Your task to perform on an android device: Do I have any events this weekend? Image 0: 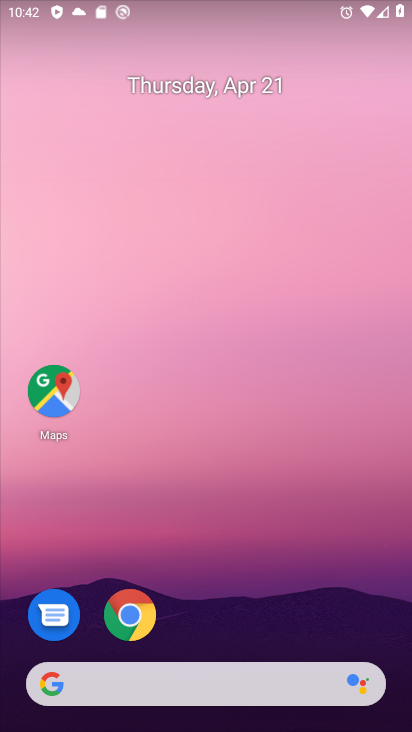
Step 0: drag from (230, 643) to (279, 26)
Your task to perform on an android device: Do I have any events this weekend? Image 1: 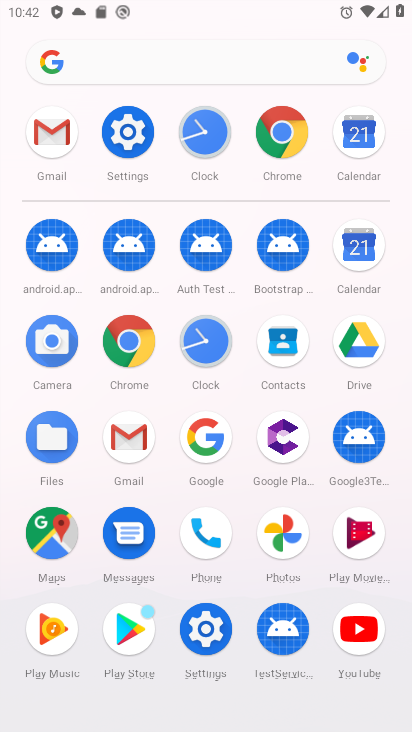
Step 1: click (357, 238)
Your task to perform on an android device: Do I have any events this weekend? Image 2: 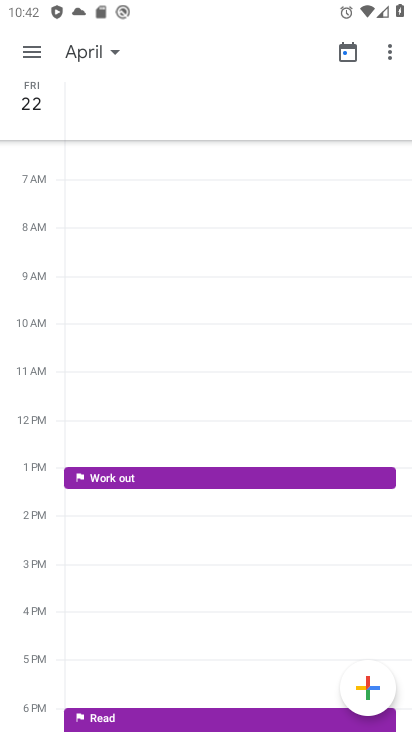
Step 2: click (31, 54)
Your task to perform on an android device: Do I have any events this weekend? Image 3: 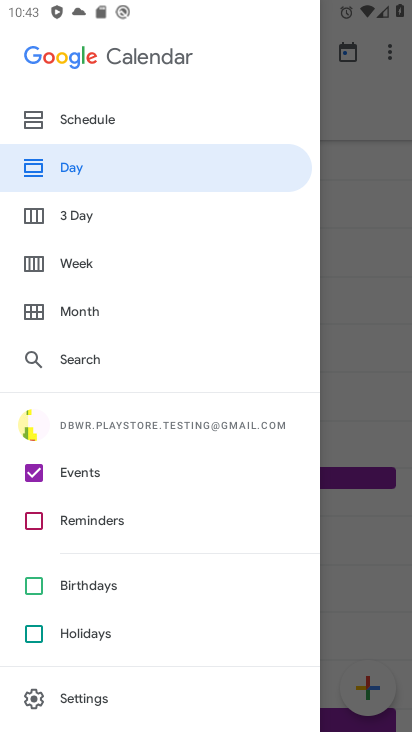
Step 3: click (109, 260)
Your task to perform on an android device: Do I have any events this weekend? Image 4: 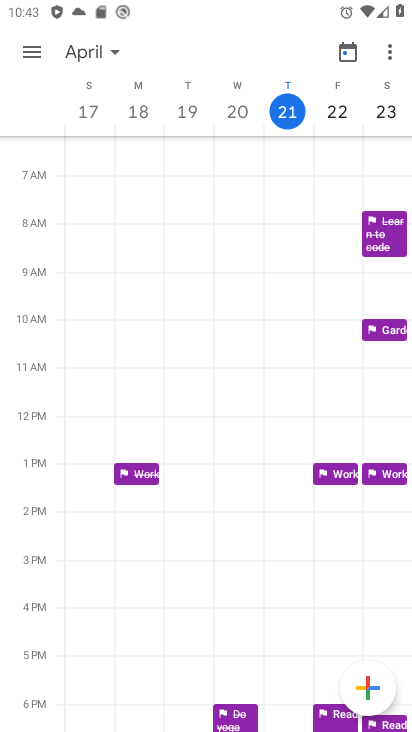
Step 4: drag from (380, 114) to (67, 112)
Your task to perform on an android device: Do I have any events this weekend? Image 5: 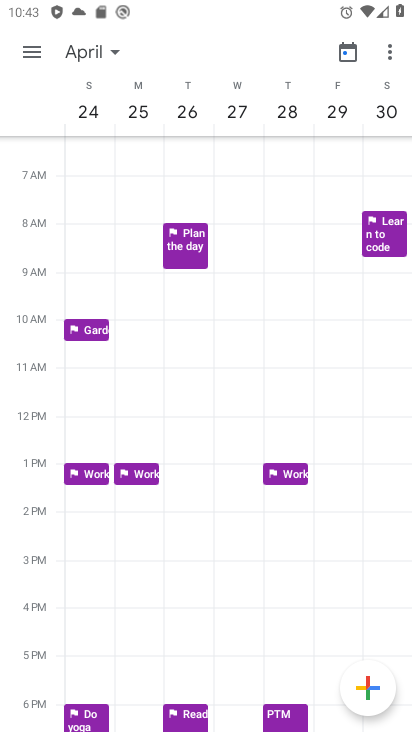
Step 5: drag from (100, 114) to (377, 114)
Your task to perform on an android device: Do I have any events this weekend? Image 6: 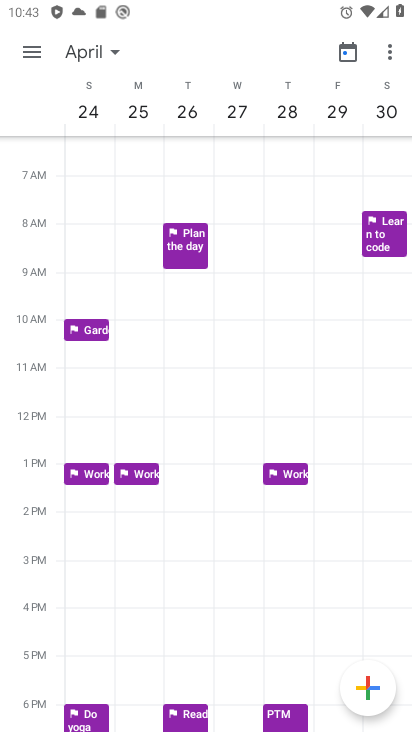
Step 6: drag from (87, 112) to (411, 100)
Your task to perform on an android device: Do I have any events this weekend? Image 7: 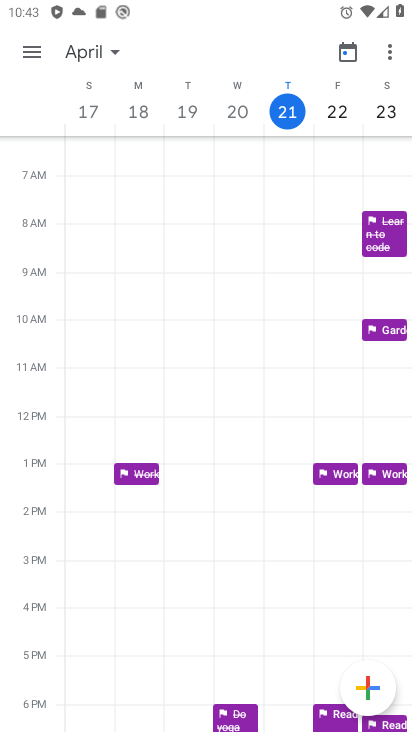
Step 7: click (293, 113)
Your task to perform on an android device: Do I have any events this weekend? Image 8: 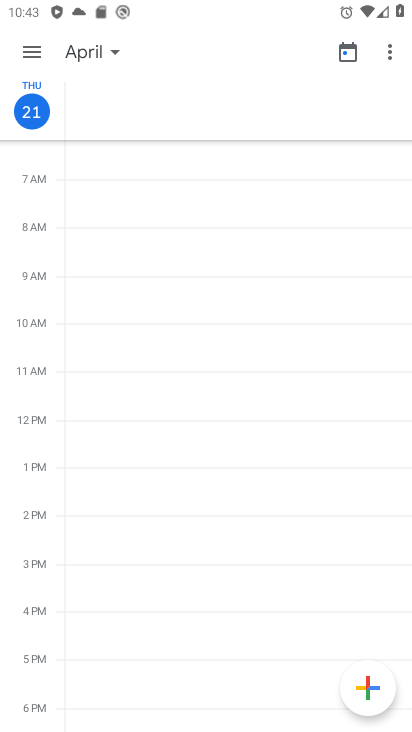
Step 8: click (47, 122)
Your task to perform on an android device: Do I have any events this weekend? Image 9: 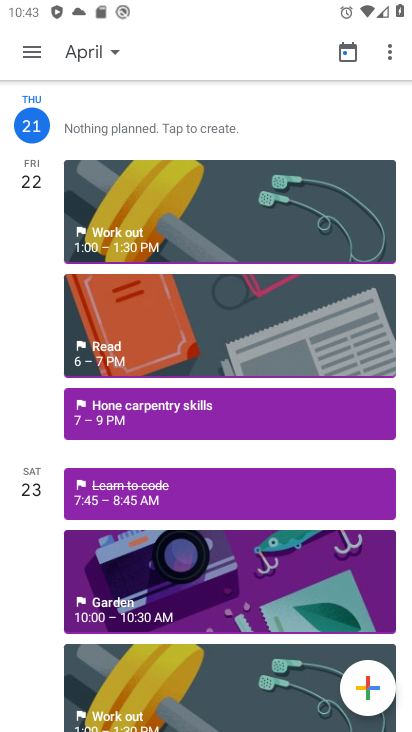
Step 9: task complete